Your task to perform on an android device: Open calendar and show me the first week of next month Image 0: 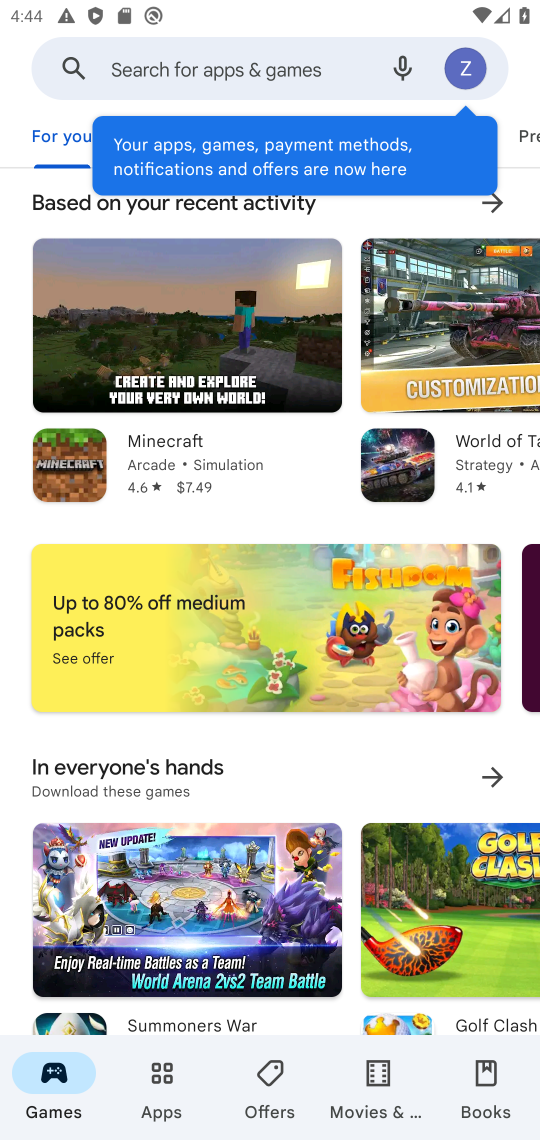
Step 0: press home button
Your task to perform on an android device: Open calendar and show me the first week of next month Image 1: 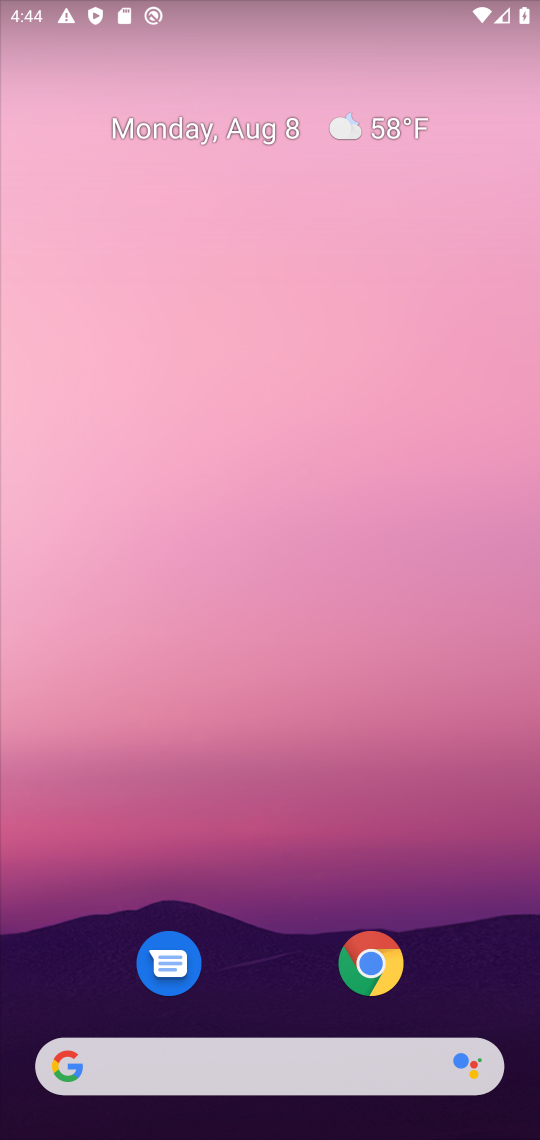
Step 1: drag from (275, 980) to (288, 23)
Your task to perform on an android device: Open calendar and show me the first week of next month Image 2: 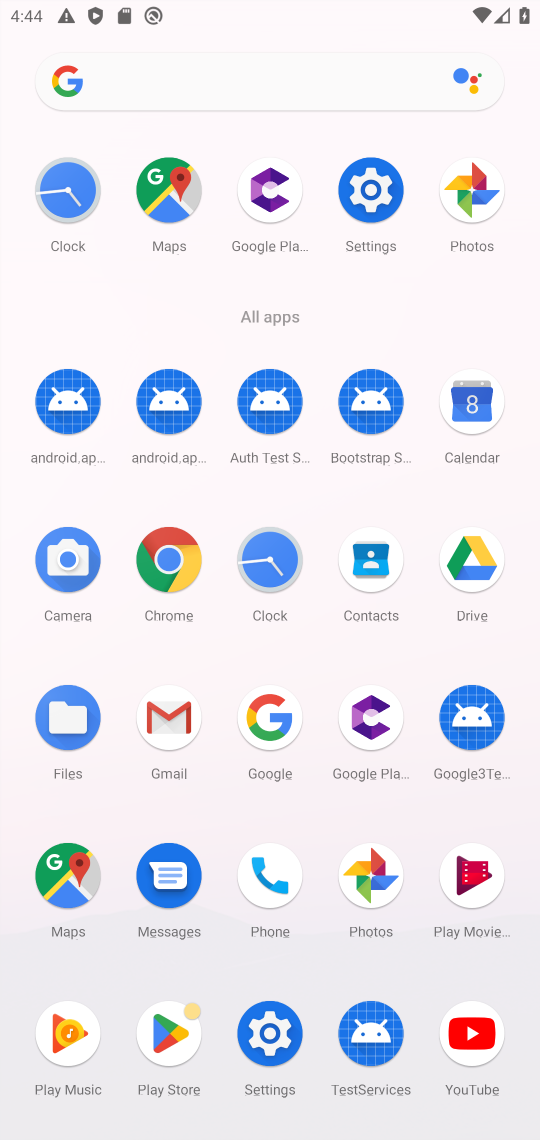
Step 2: click (467, 416)
Your task to perform on an android device: Open calendar and show me the first week of next month Image 3: 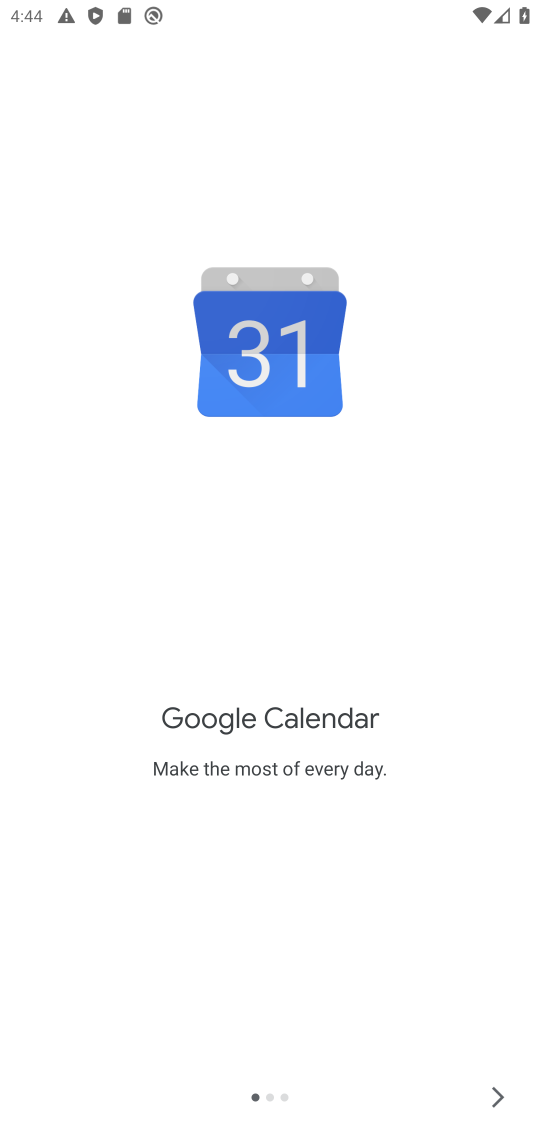
Step 3: click (502, 1088)
Your task to perform on an android device: Open calendar and show me the first week of next month Image 4: 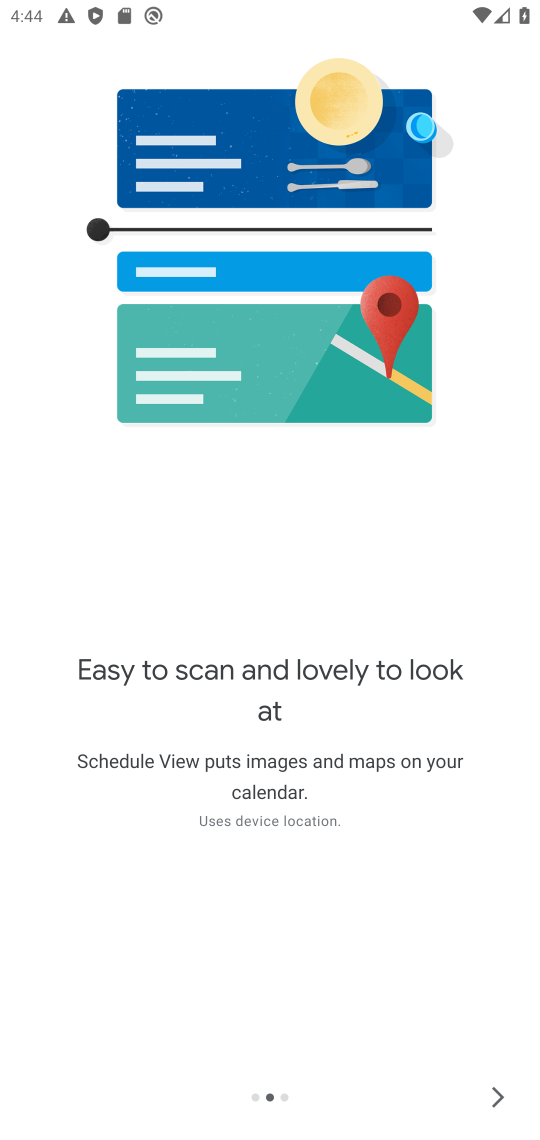
Step 4: click (502, 1088)
Your task to perform on an android device: Open calendar and show me the first week of next month Image 5: 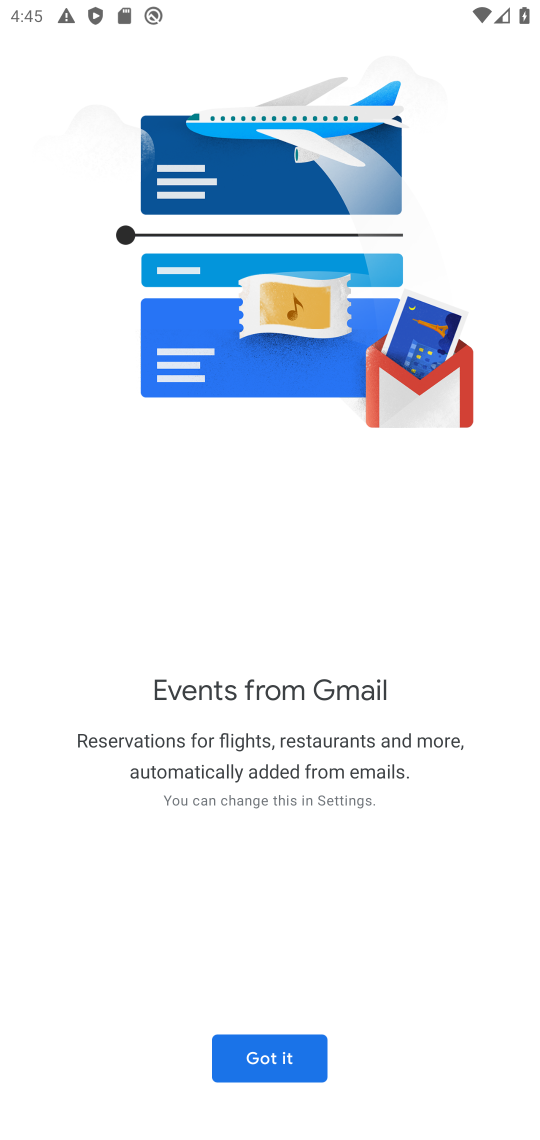
Step 5: click (248, 1053)
Your task to perform on an android device: Open calendar and show me the first week of next month Image 6: 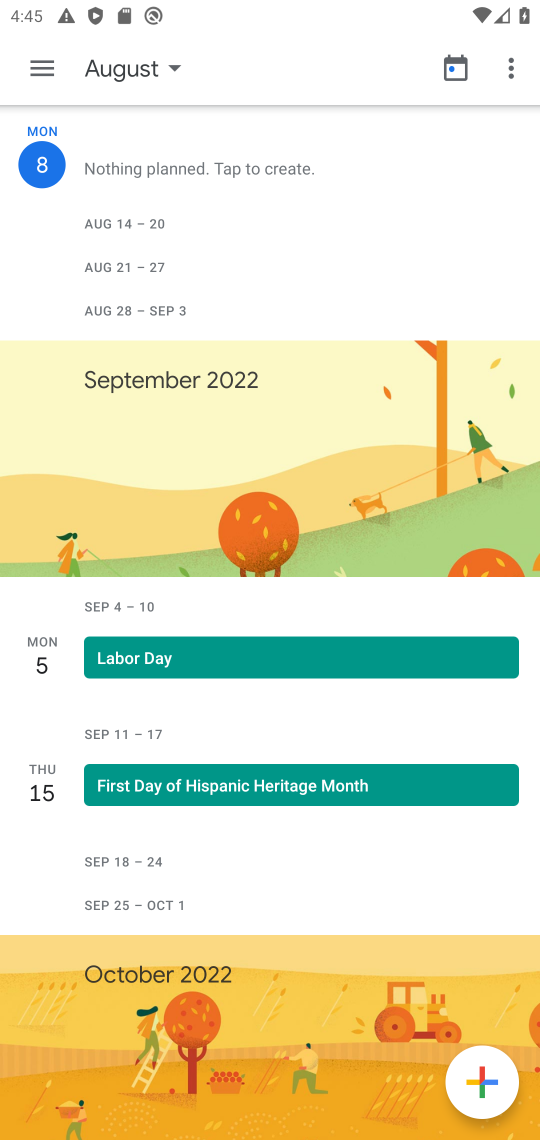
Step 6: click (158, 71)
Your task to perform on an android device: Open calendar and show me the first week of next month Image 7: 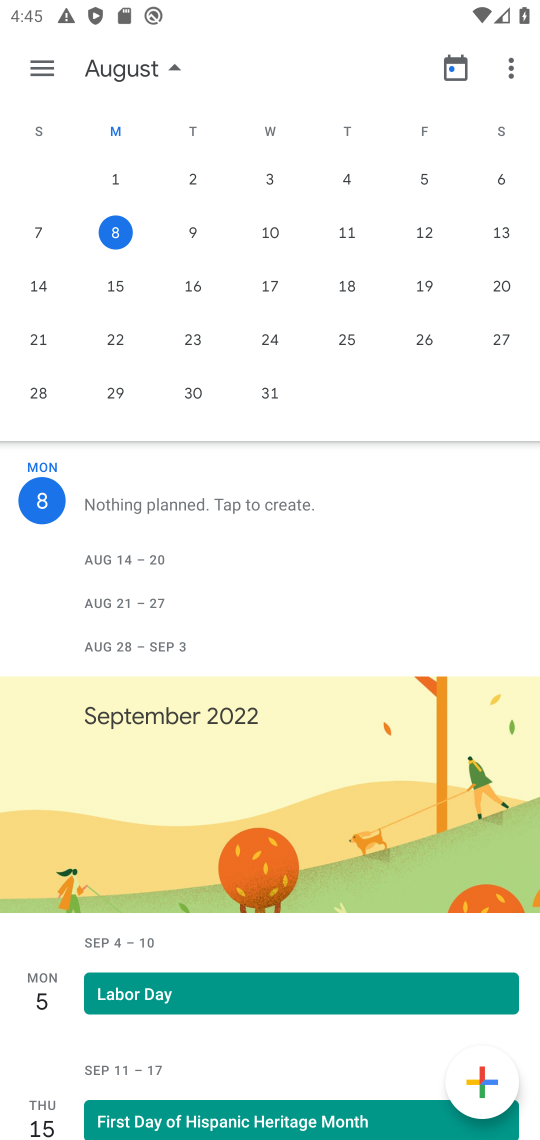
Step 7: task complete